Your task to perform on an android device: open a new tab in the chrome app Image 0: 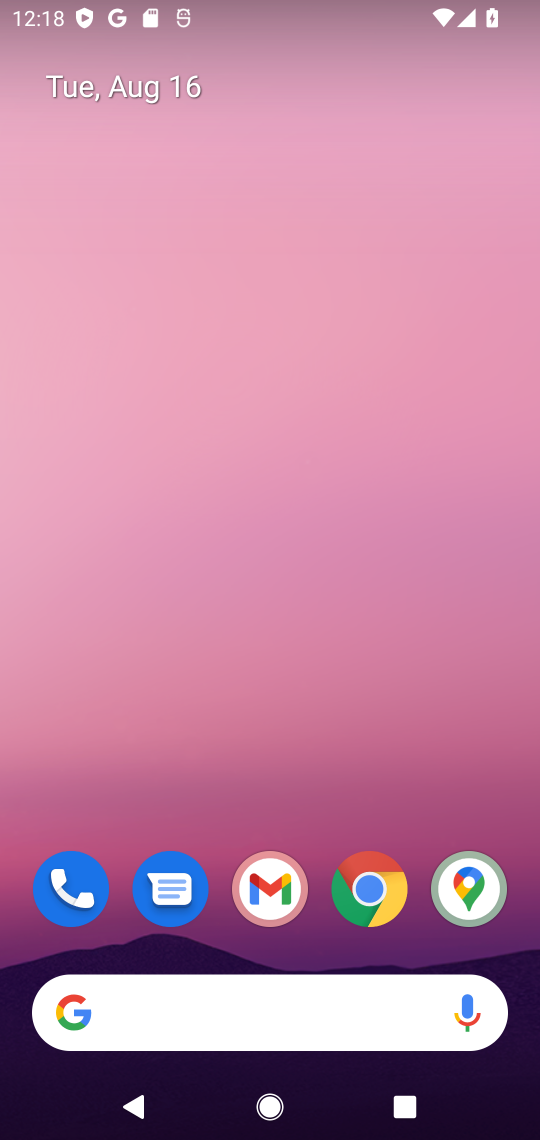
Step 0: drag from (310, 451) to (337, 0)
Your task to perform on an android device: open a new tab in the chrome app Image 1: 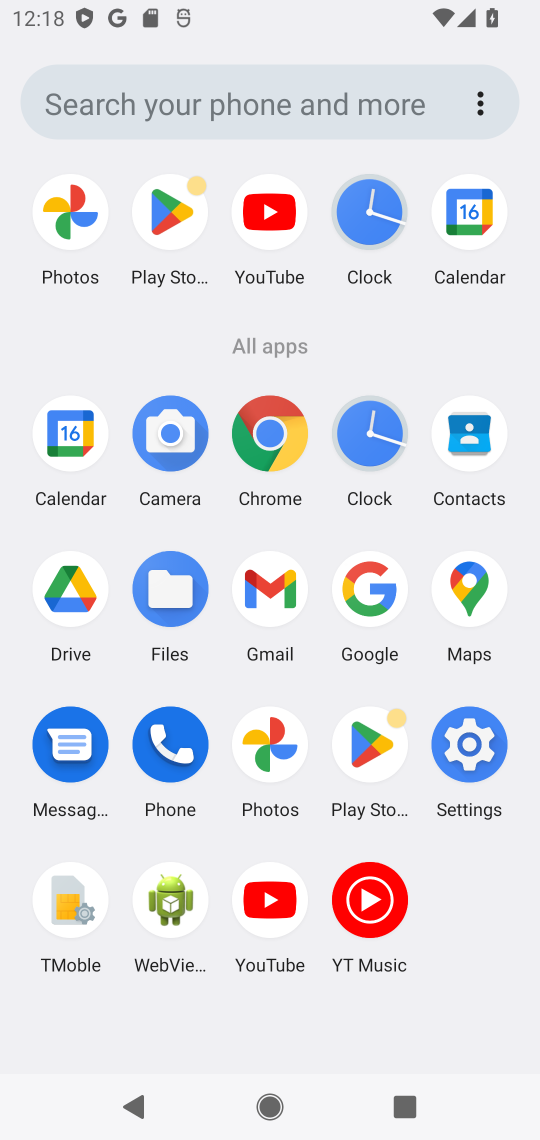
Step 1: click (235, 461)
Your task to perform on an android device: open a new tab in the chrome app Image 2: 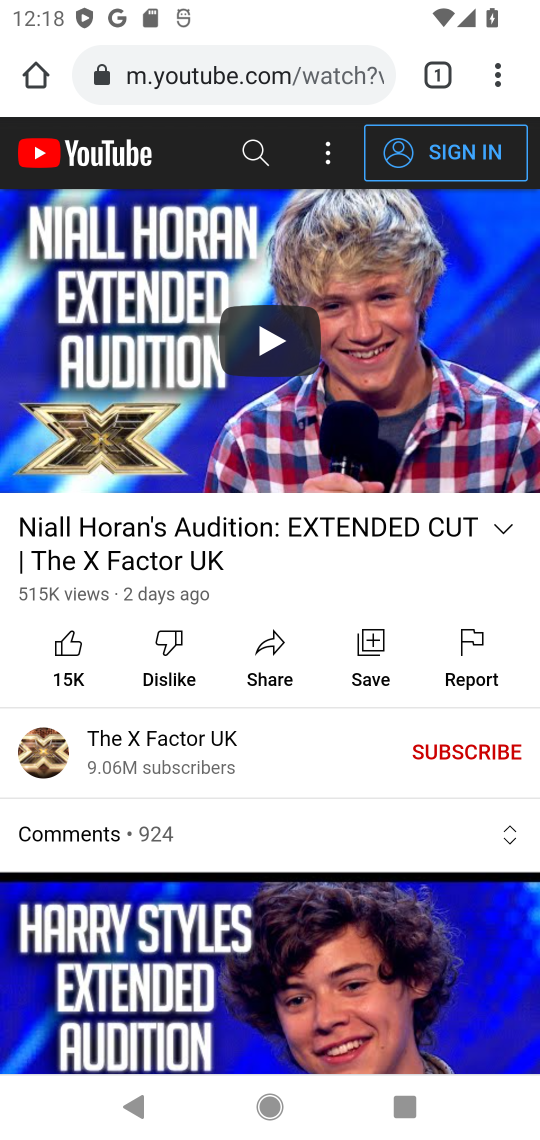
Step 2: task complete